Your task to perform on an android device: turn off picture-in-picture Image 0: 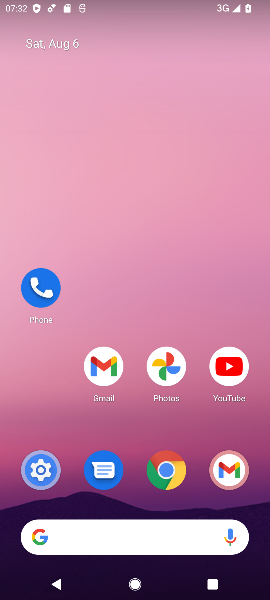
Step 0: press home button
Your task to perform on an android device: turn off picture-in-picture Image 1: 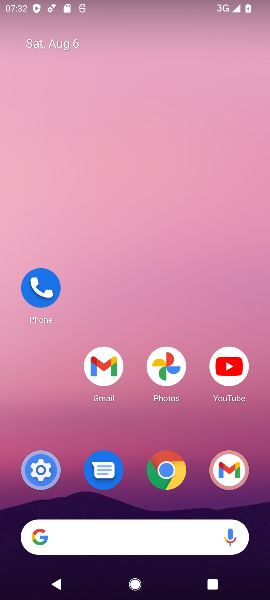
Step 1: drag from (201, 468) to (189, 16)
Your task to perform on an android device: turn off picture-in-picture Image 2: 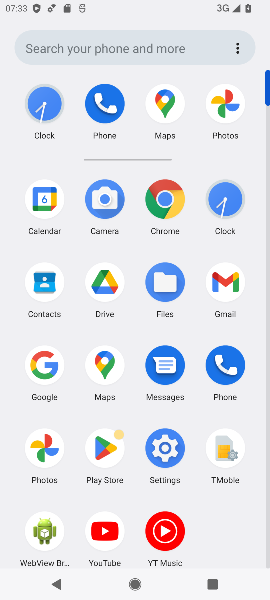
Step 2: click (169, 215)
Your task to perform on an android device: turn off picture-in-picture Image 3: 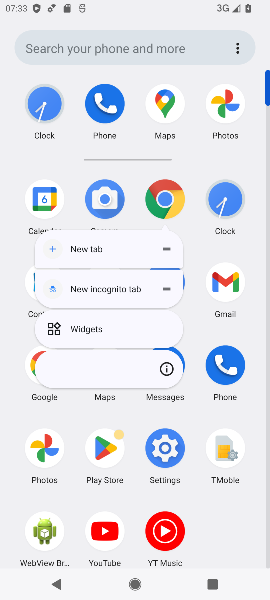
Step 3: click (237, 536)
Your task to perform on an android device: turn off picture-in-picture Image 4: 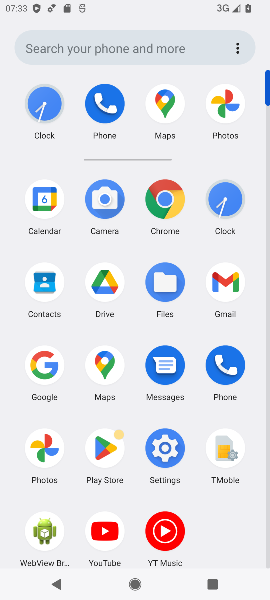
Step 4: click (173, 213)
Your task to perform on an android device: turn off picture-in-picture Image 5: 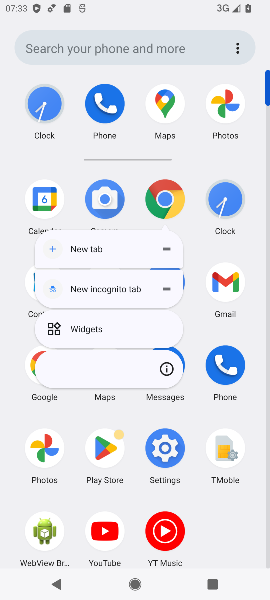
Step 5: click (165, 366)
Your task to perform on an android device: turn off picture-in-picture Image 6: 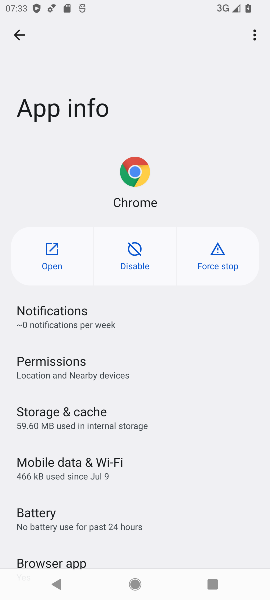
Step 6: drag from (105, 488) to (164, 73)
Your task to perform on an android device: turn off picture-in-picture Image 7: 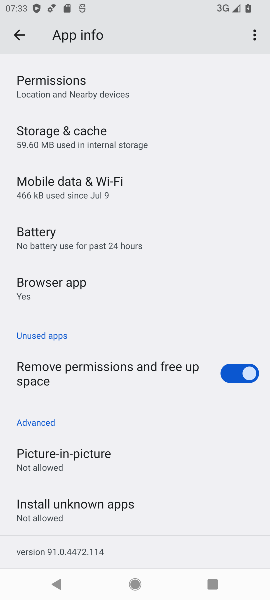
Step 7: click (40, 461)
Your task to perform on an android device: turn off picture-in-picture Image 8: 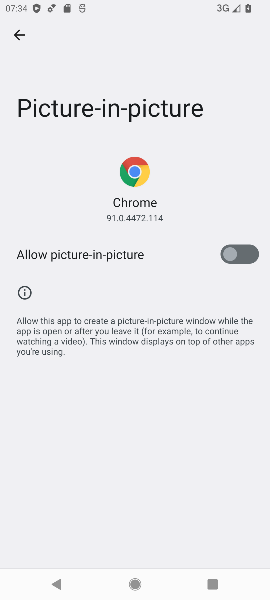
Step 8: task complete